Your task to perform on an android device: Open ESPN.com Image 0: 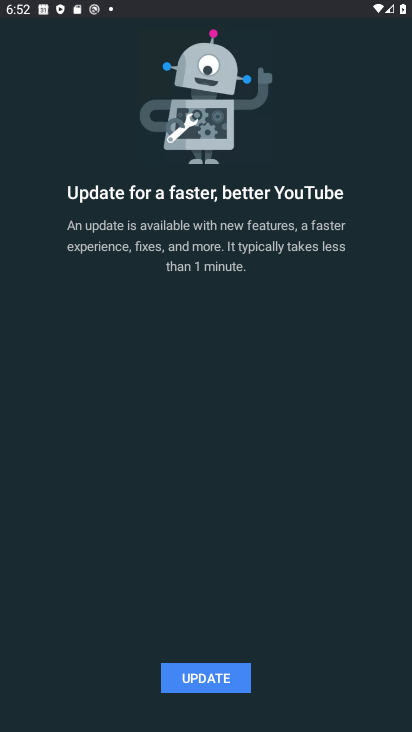
Step 0: press back button
Your task to perform on an android device: Open ESPN.com Image 1: 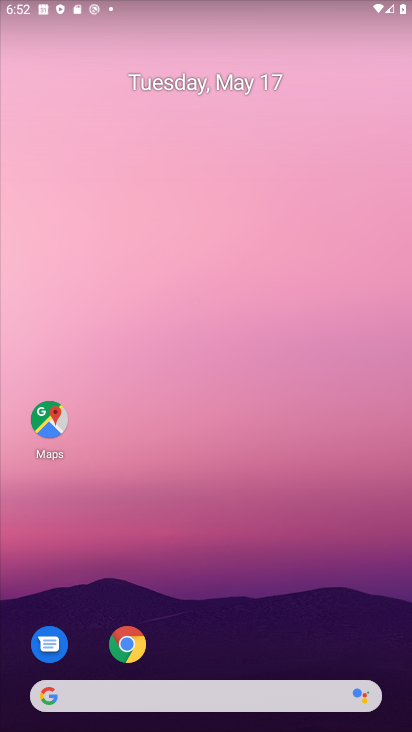
Step 1: drag from (282, 657) to (266, 243)
Your task to perform on an android device: Open ESPN.com Image 2: 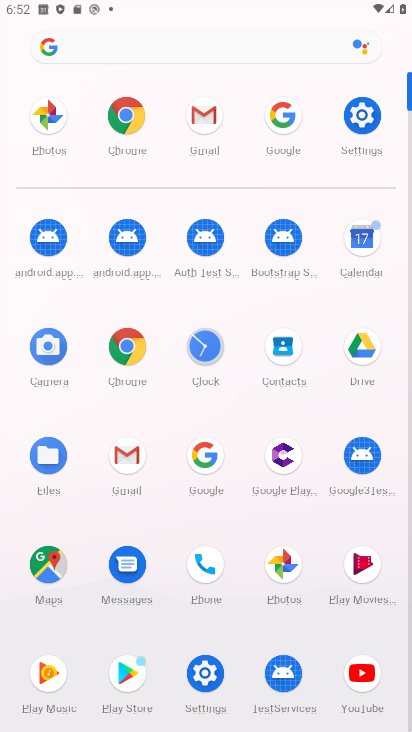
Step 2: click (115, 363)
Your task to perform on an android device: Open ESPN.com Image 3: 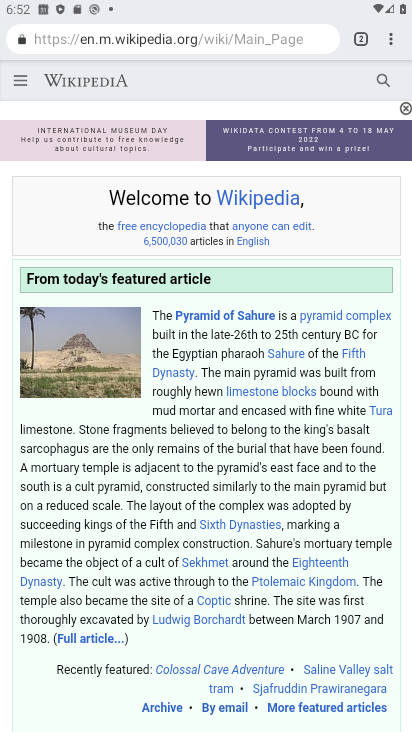
Step 3: press back button
Your task to perform on an android device: Open ESPN.com Image 4: 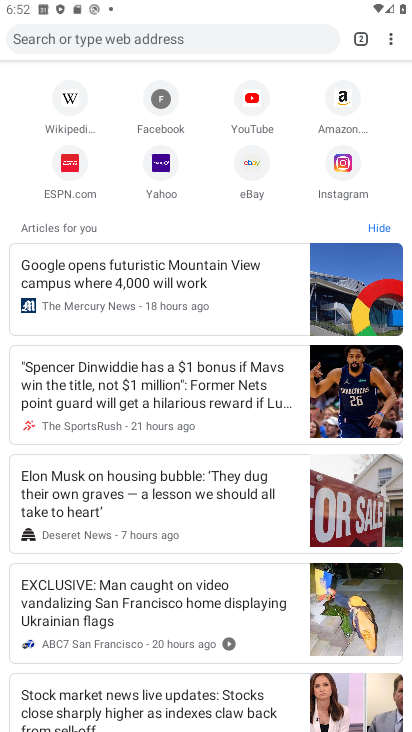
Step 4: click (68, 177)
Your task to perform on an android device: Open ESPN.com Image 5: 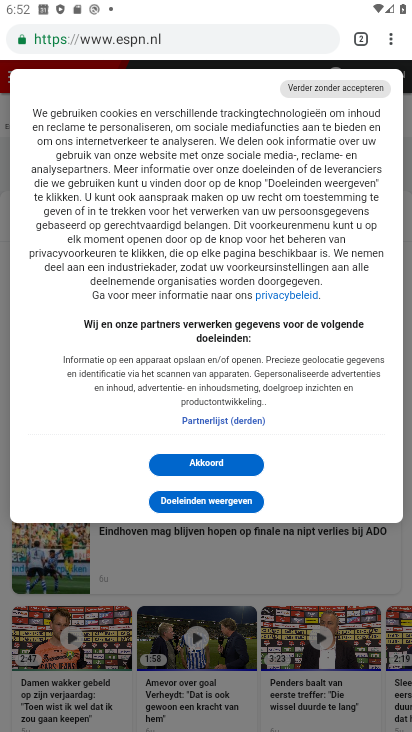
Step 5: task complete